Your task to perform on an android device: Go to calendar. Show me events next week Image 0: 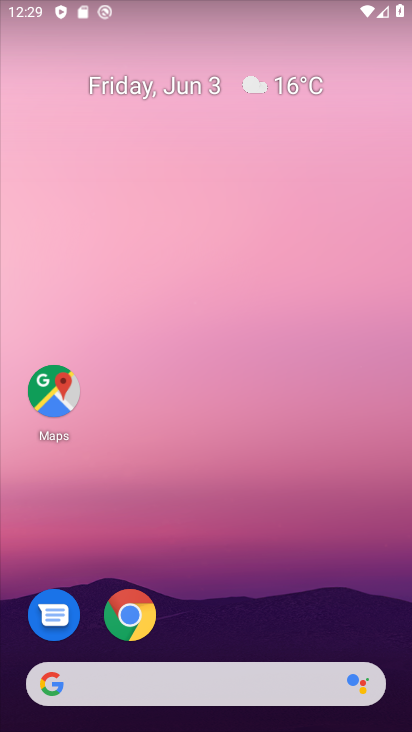
Step 0: drag from (250, 567) to (239, 262)
Your task to perform on an android device: Go to calendar. Show me events next week Image 1: 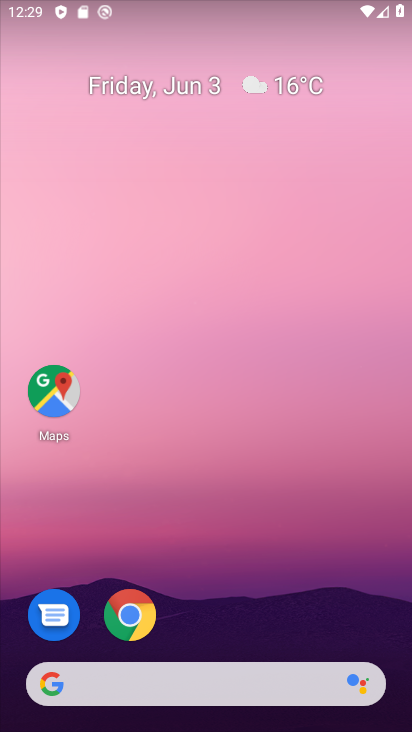
Step 1: drag from (202, 543) to (223, 252)
Your task to perform on an android device: Go to calendar. Show me events next week Image 2: 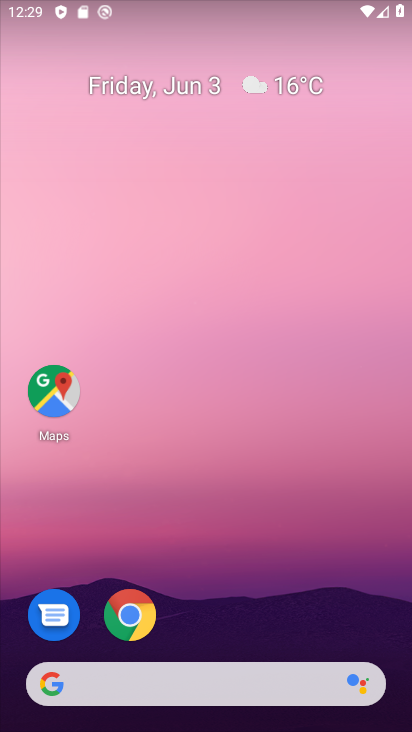
Step 2: drag from (252, 621) to (198, 203)
Your task to perform on an android device: Go to calendar. Show me events next week Image 3: 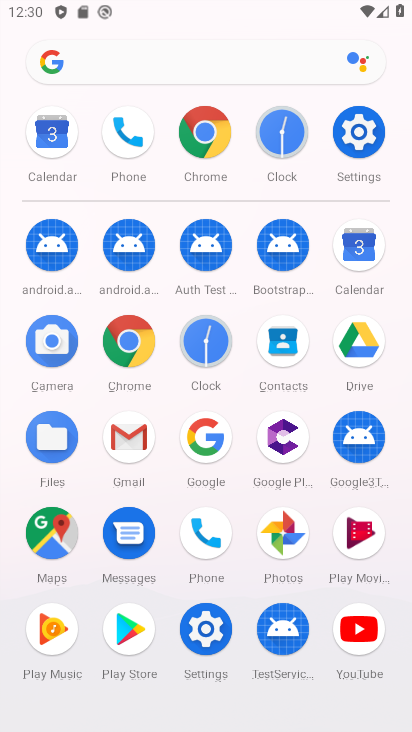
Step 3: click (342, 247)
Your task to perform on an android device: Go to calendar. Show me events next week Image 4: 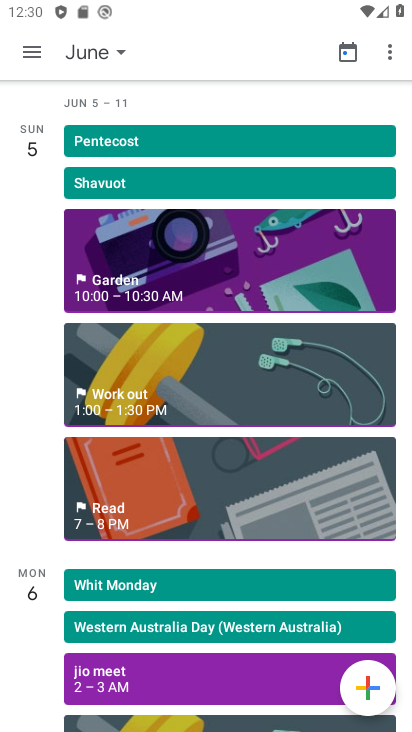
Step 4: click (29, 48)
Your task to perform on an android device: Go to calendar. Show me events next week Image 5: 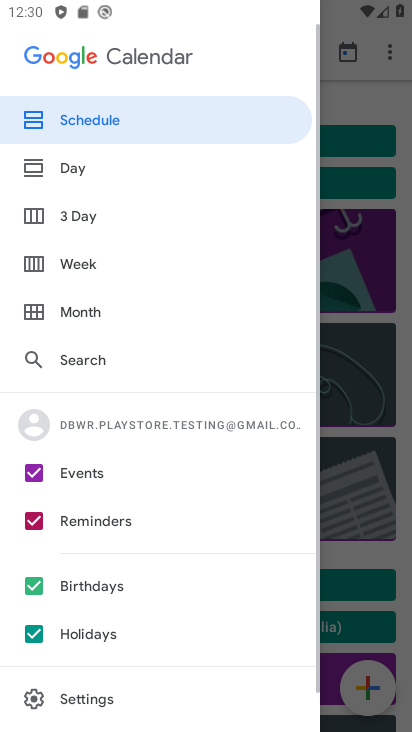
Step 5: click (81, 263)
Your task to perform on an android device: Go to calendar. Show me events next week Image 6: 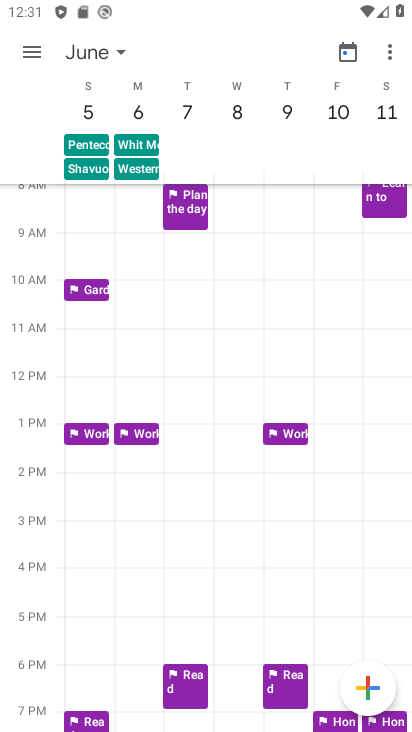
Step 6: task complete